Your task to perform on an android device: move a message to another label in the gmail app Image 0: 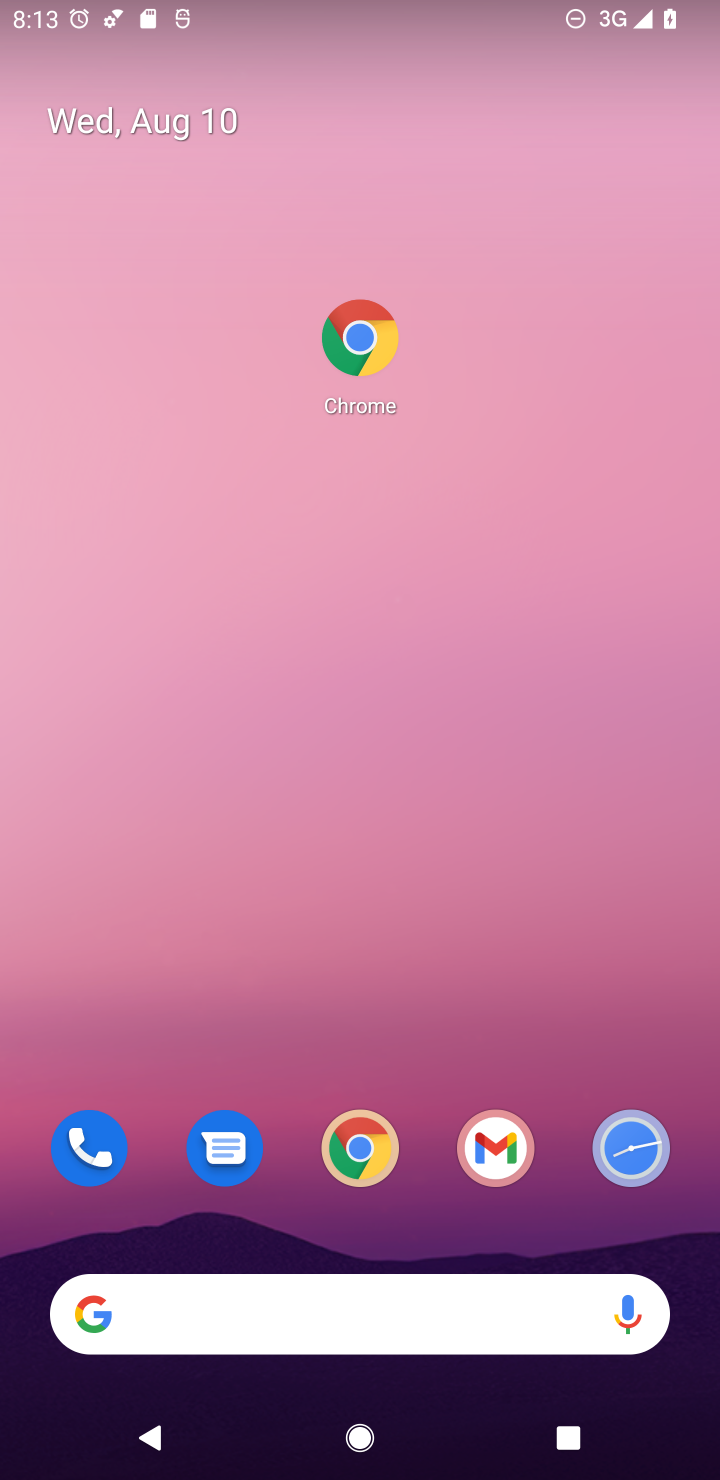
Step 0: click (215, 1146)
Your task to perform on an android device: move a message to another label in the gmail app Image 1: 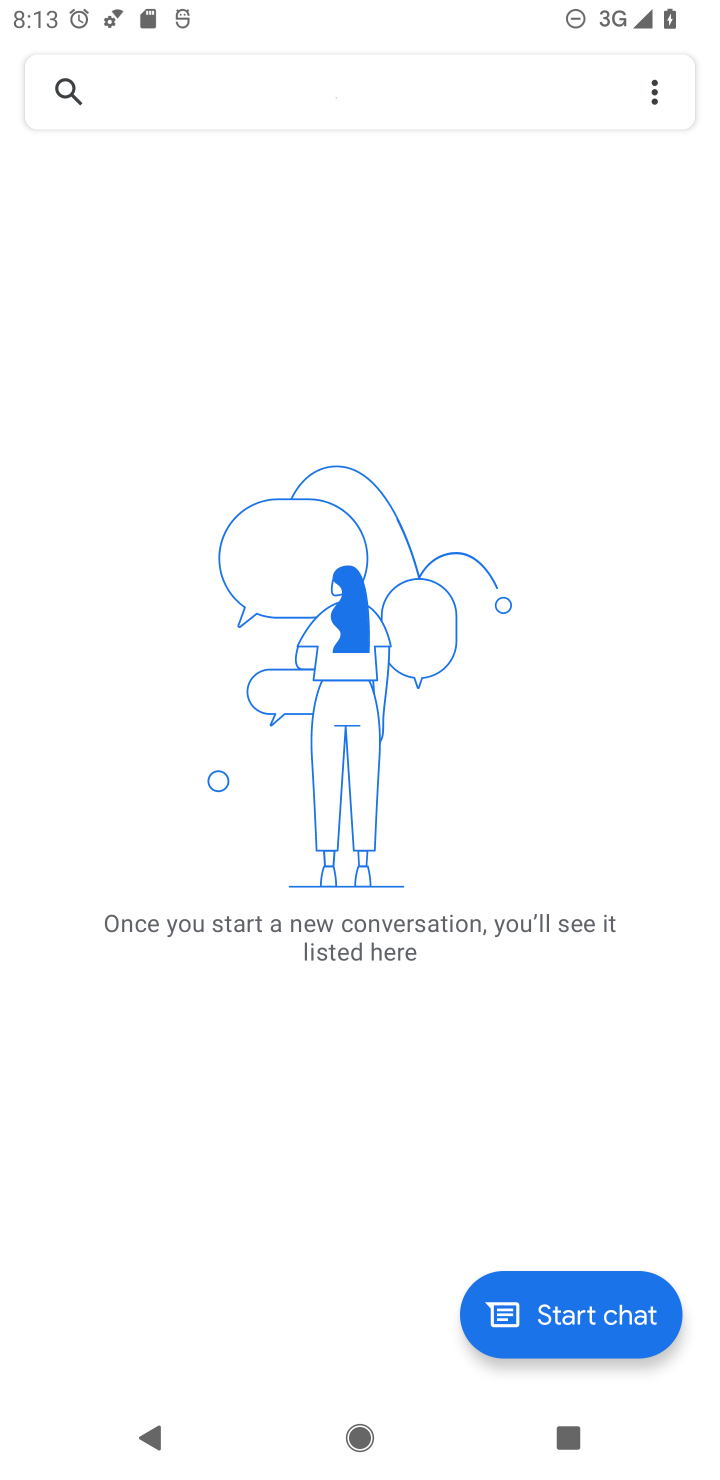
Step 1: press home button
Your task to perform on an android device: move a message to another label in the gmail app Image 2: 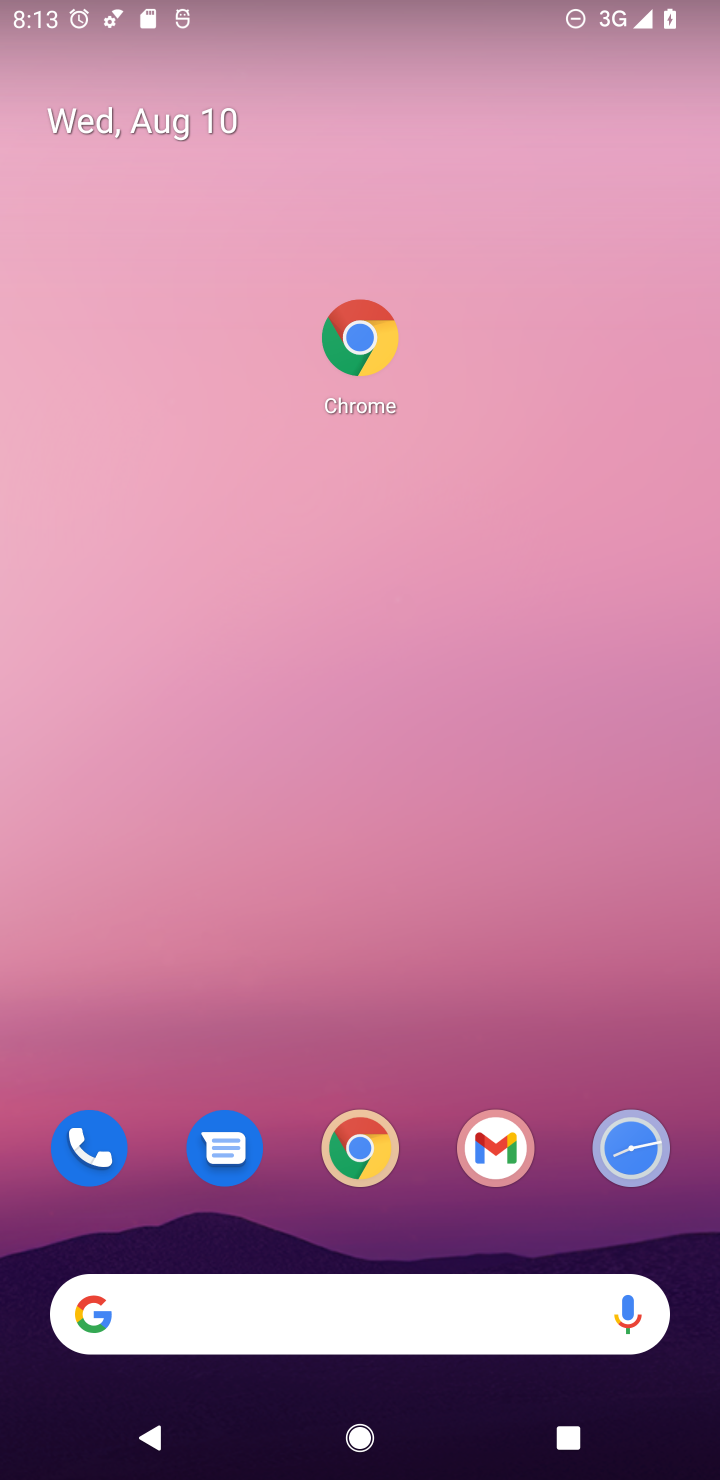
Step 2: click (511, 1128)
Your task to perform on an android device: move a message to another label in the gmail app Image 3: 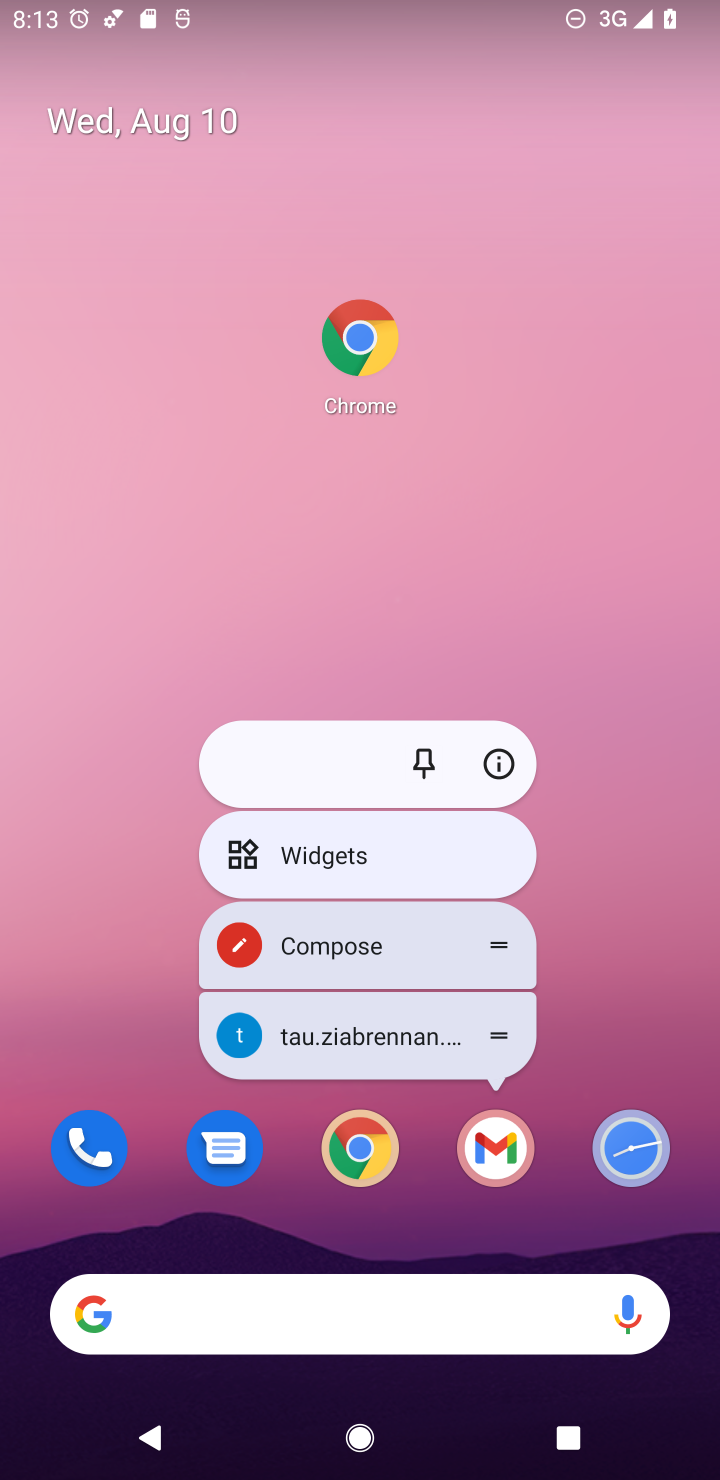
Step 3: click (517, 1160)
Your task to perform on an android device: move a message to another label in the gmail app Image 4: 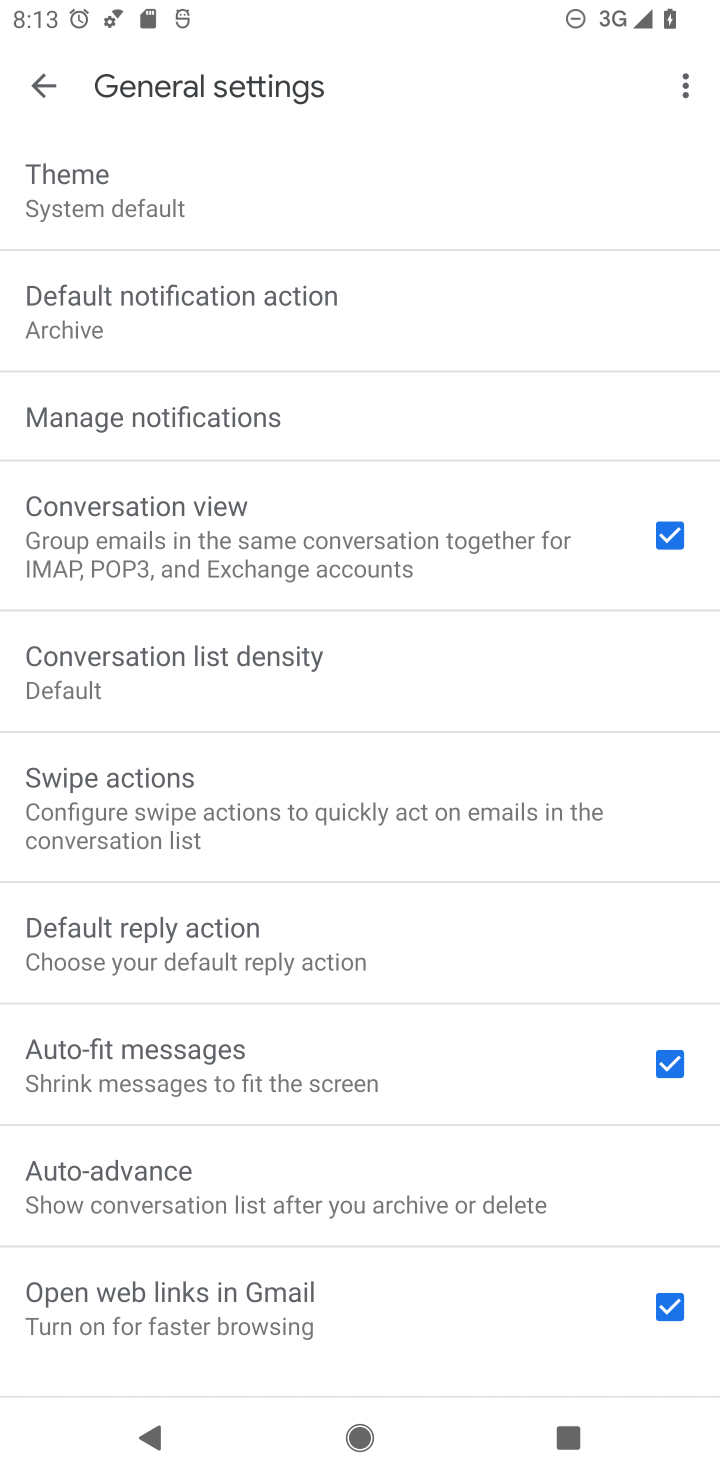
Step 4: click (32, 78)
Your task to perform on an android device: move a message to another label in the gmail app Image 5: 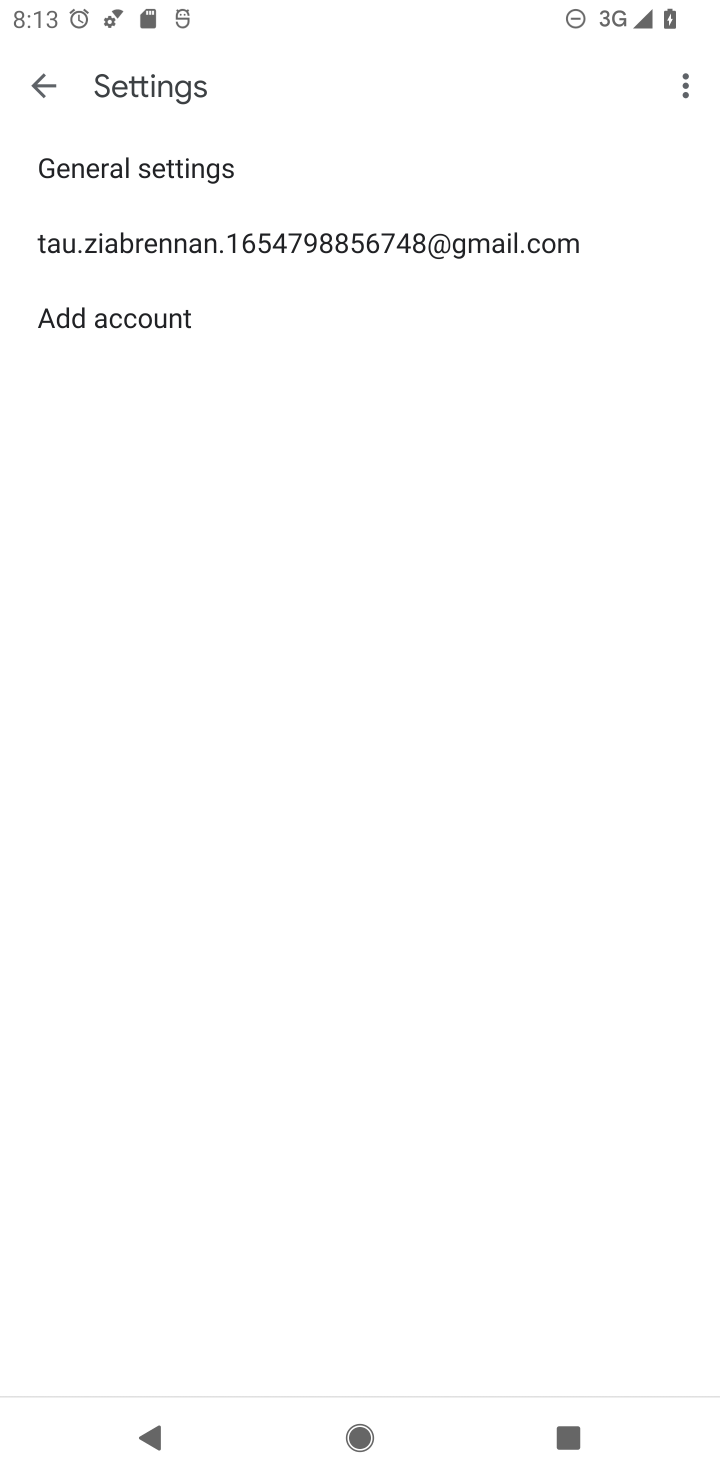
Step 5: click (47, 77)
Your task to perform on an android device: move a message to another label in the gmail app Image 6: 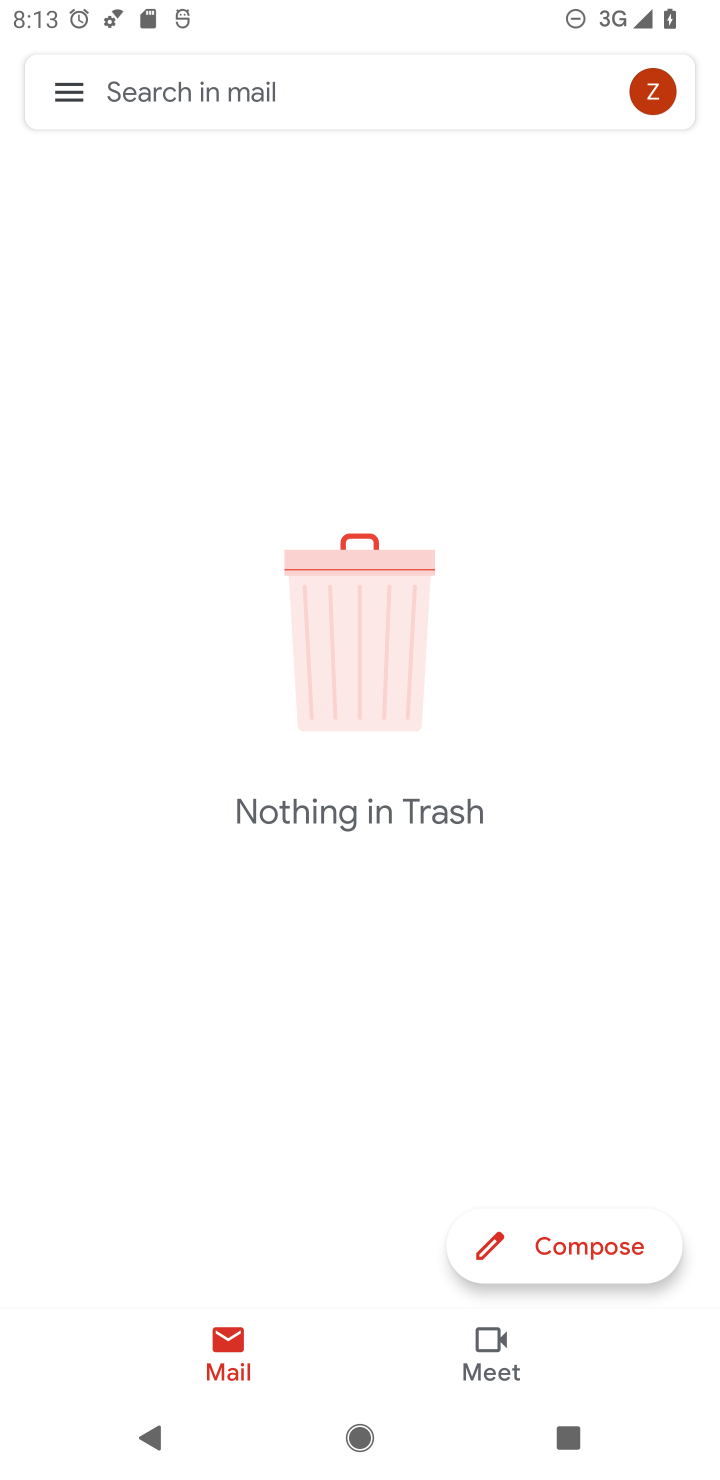
Step 6: click (47, 77)
Your task to perform on an android device: move a message to another label in the gmail app Image 7: 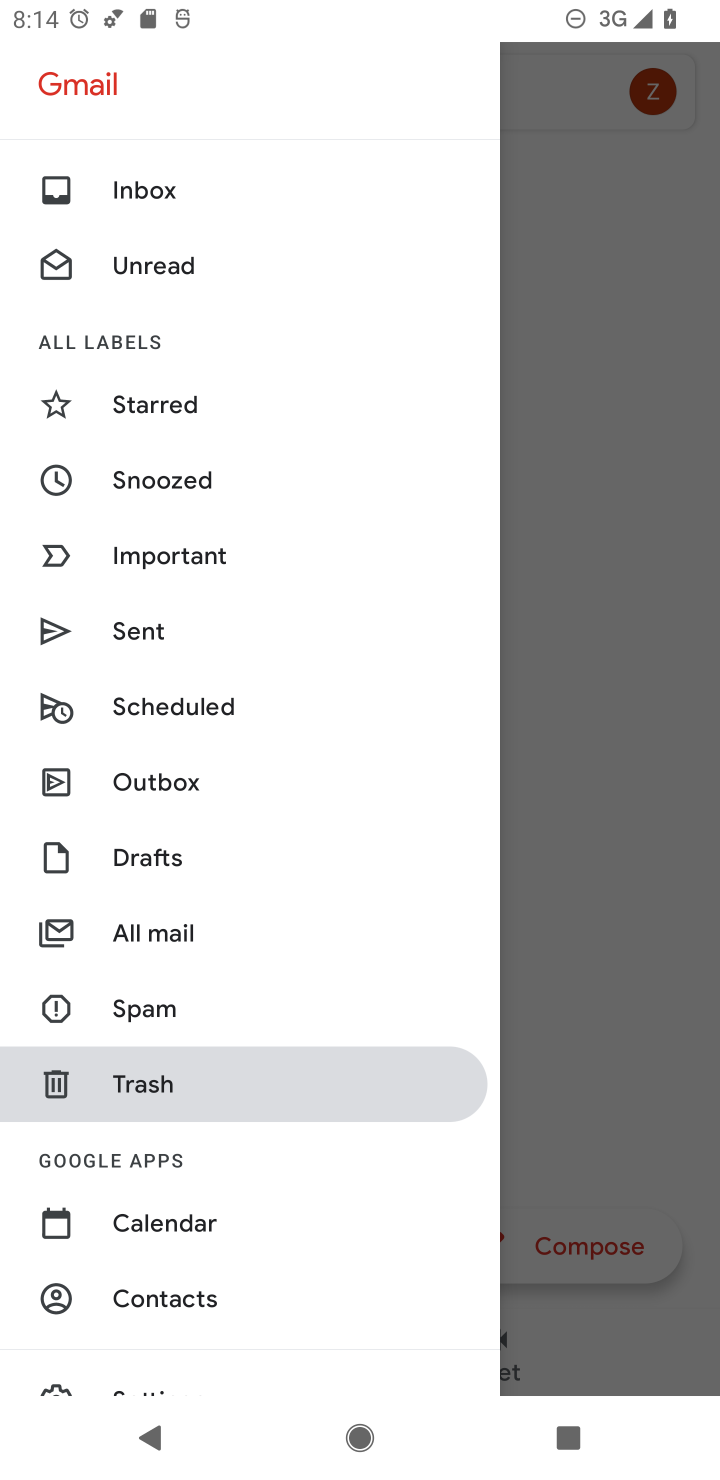
Step 7: click (132, 925)
Your task to perform on an android device: move a message to another label in the gmail app Image 8: 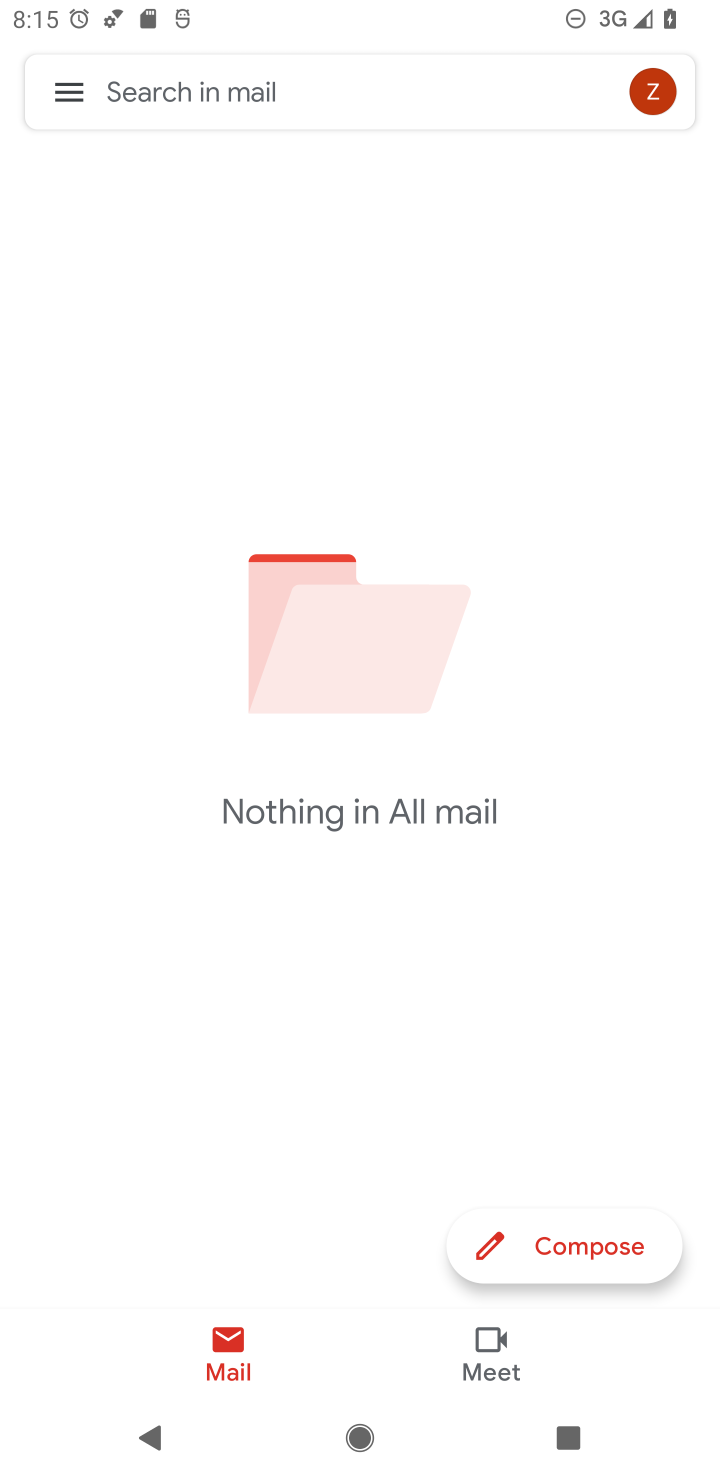
Step 8: task complete